Your task to perform on an android device: Play the new Ed Sheeran video on YouTube Image 0: 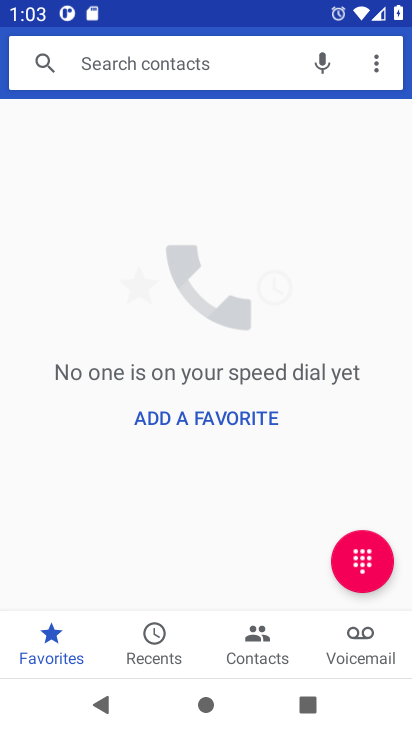
Step 0: press home button
Your task to perform on an android device: Play the new Ed Sheeran video on YouTube Image 1: 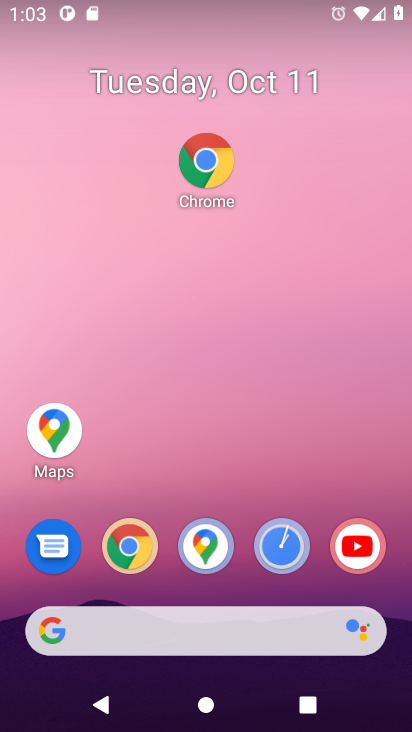
Step 1: click (373, 557)
Your task to perform on an android device: Play the new Ed Sheeran video on YouTube Image 2: 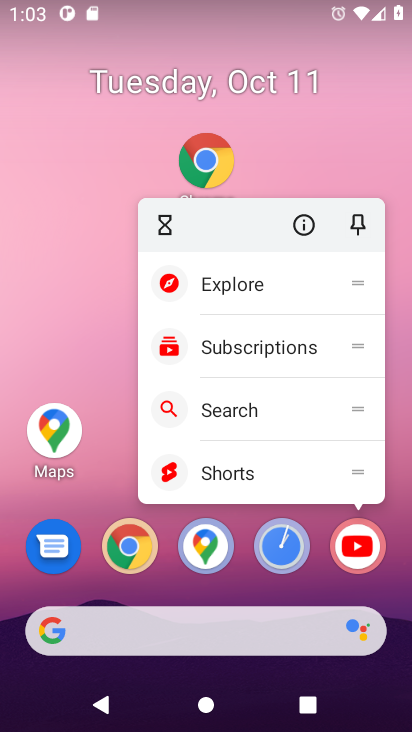
Step 2: click (362, 549)
Your task to perform on an android device: Play the new Ed Sheeran video on YouTube Image 3: 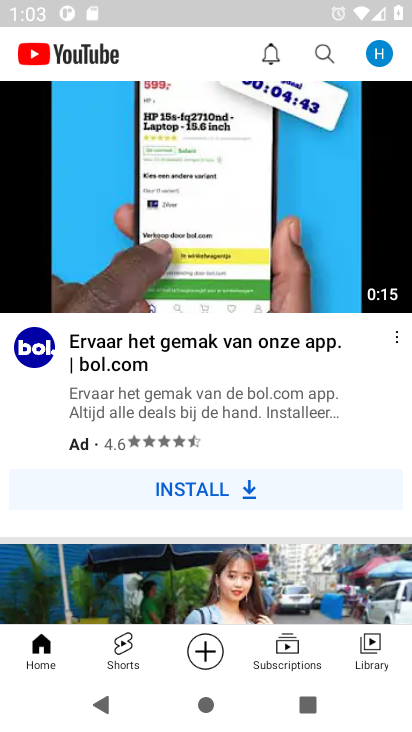
Step 3: click (315, 62)
Your task to perform on an android device: Play the new Ed Sheeran video on YouTube Image 4: 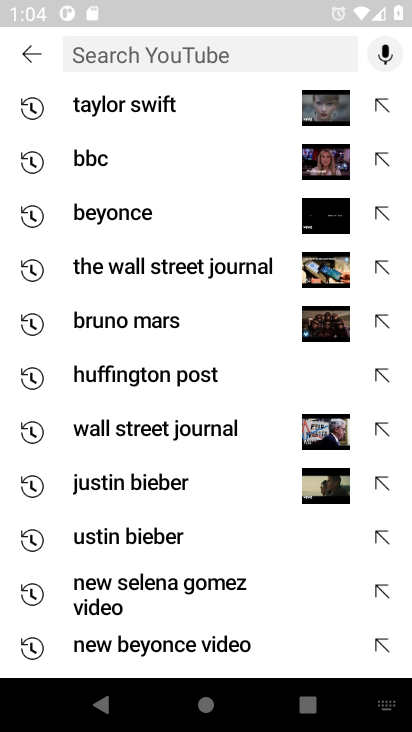
Step 4: type "ed sheeran"
Your task to perform on an android device: Play the new Ed Sheeran video on YouTube Image 5: 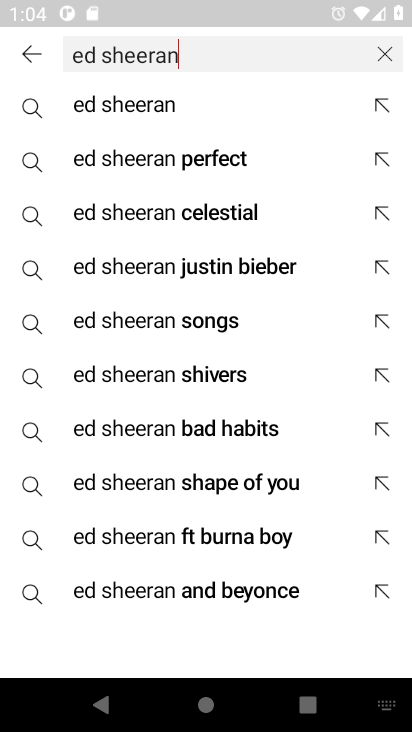
Step 5: press enter
Your task to perform on an android device: Play the new Ed Sheeran video on YouTube Image 6: 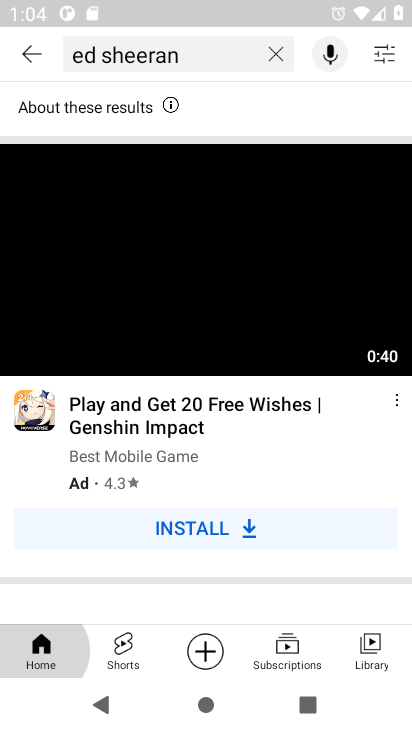
Step 6: drag from (249, 371) to (271, 183)
Your task to perform on an android device: Play the new Ed Sheeran video on YouTube Image 7: 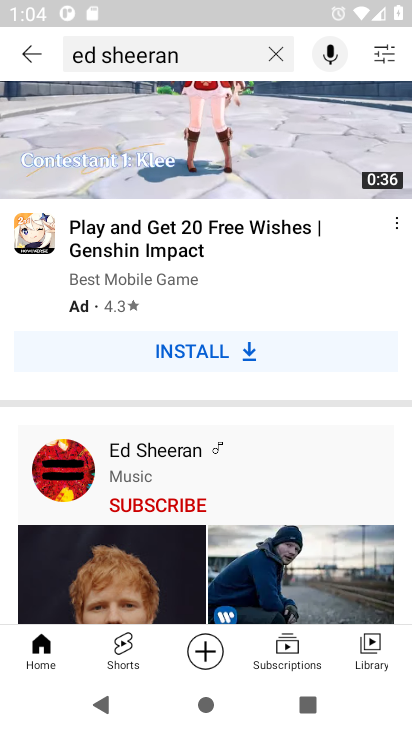
Step 7: drag from (288, 443) to (315, 202)
Your task to perform on an android device: Play the new Ed Sheeran video on YouTube Image 8: 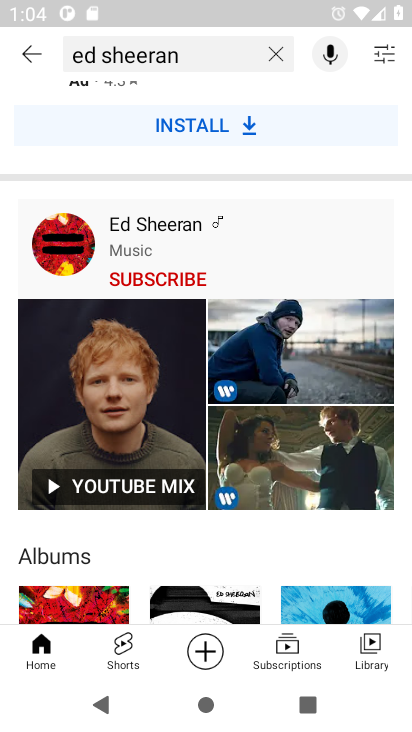
Step 8: click (178, 224)
Your task to perform on an android device: Play the new Ed Sheeran video on YouTube Image 9: 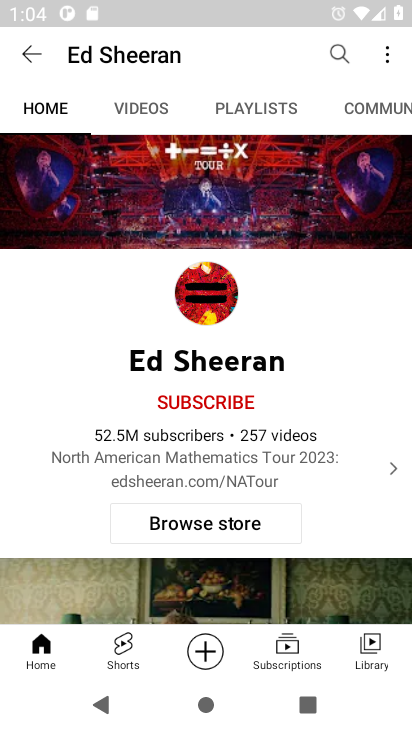
Step 9: click (151, 113)
Your task to perform on an android device: Play the new Ed Sheeran video on YouTube Image 10: 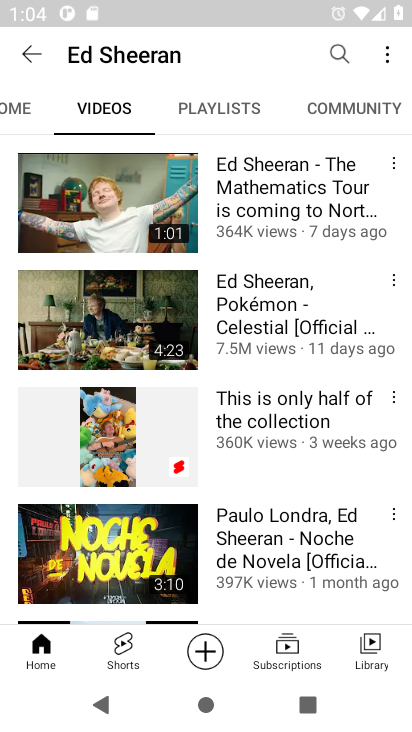
Step 10: click (137, 213)
Your task to perform on an android device: Play the new Ed Sheeran video on YouTube Image 11: 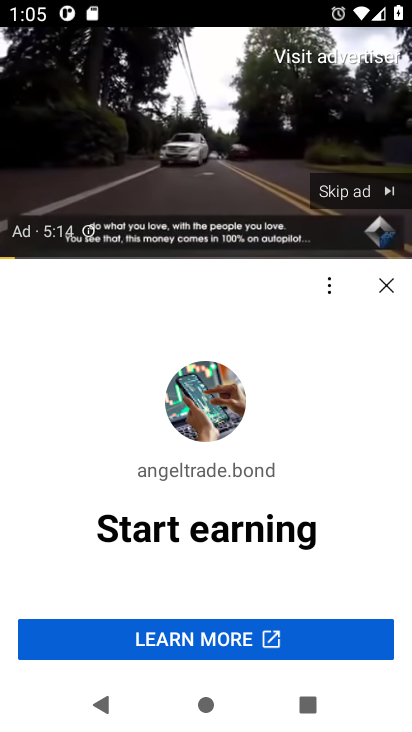
Step 11: click (382, 279)
Your task to perform on an android device: Play the new Ed Sheeran video on YouTube Image 12: 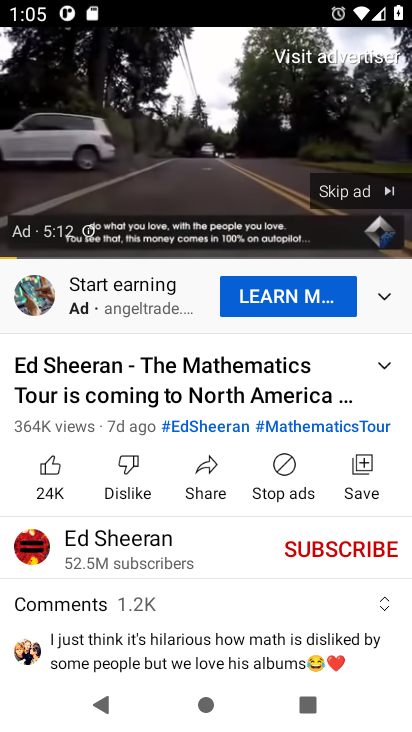
Step 12: click (375, 189)
Your task to perform on an android device: Play the new Ed Sheeran video on YouTube Image 13: 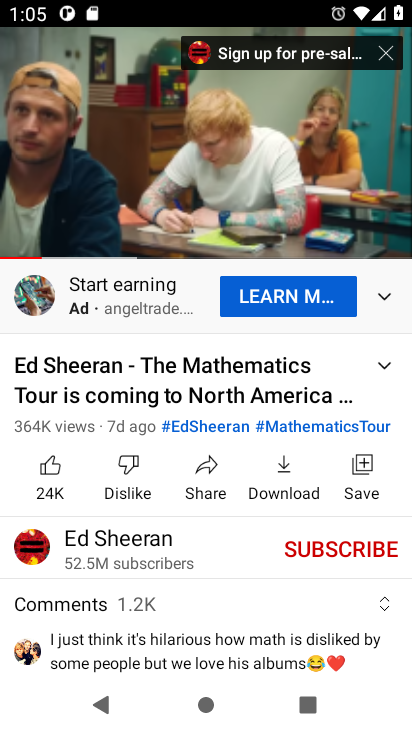
Step 13: task complete